Your task to perform on an android device: Open ESPN.com Image 0: 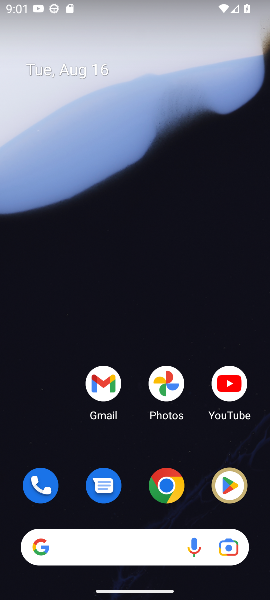
Step 0: click (163, 480)
Your task to perform on an android device: Open ESPN.com Image 1: 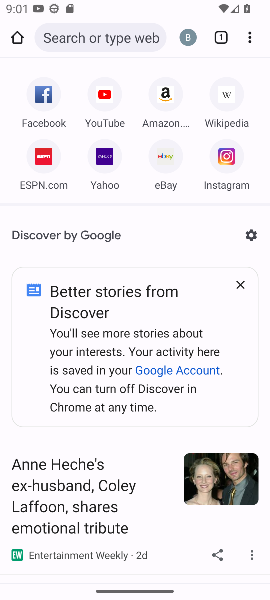
Step 1: click (47, 154)
Your task to perform on an android device: Open ESPN.com Image 2: 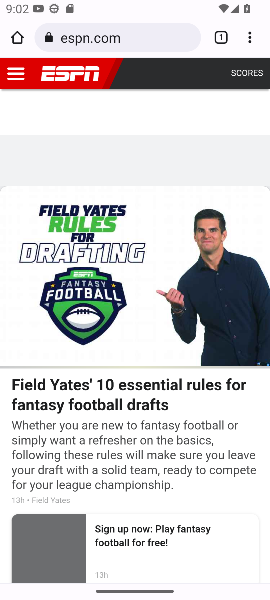
Step 2: task complete